Your task to perform on an android device: manage bookmarks in the chrome app Image 0: 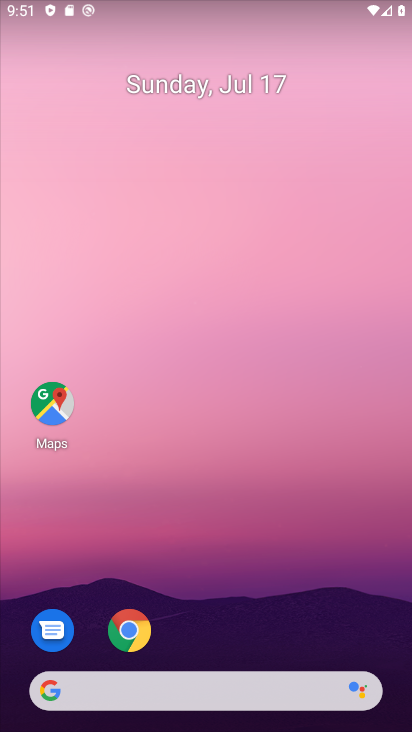
Step 0: drag from (288, 587) to (315, 56)
Your task to perform on an android device: manage bookmarks in the chrome app Image 1: 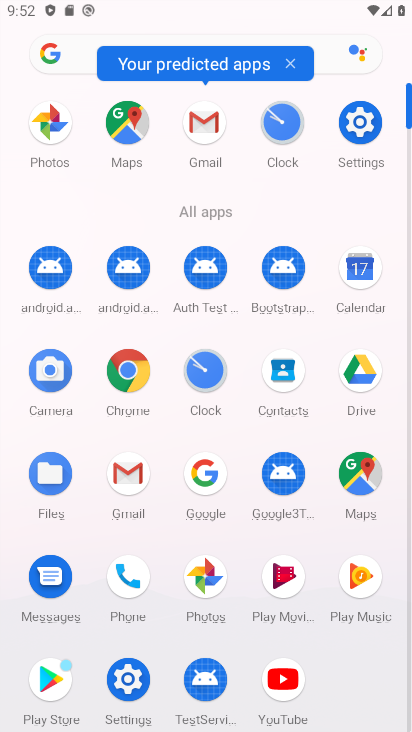
Step 1: click (135, 379)
Your task to perform on an android device: manage bookmarks in the chrome app Image 2: 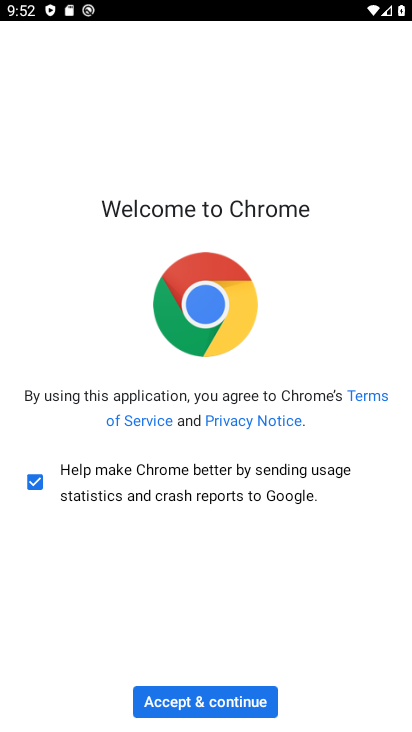
Step 2: click (189, 706)
Your task to perform on an android device: manage bookmarks in the chrome app Image 3: 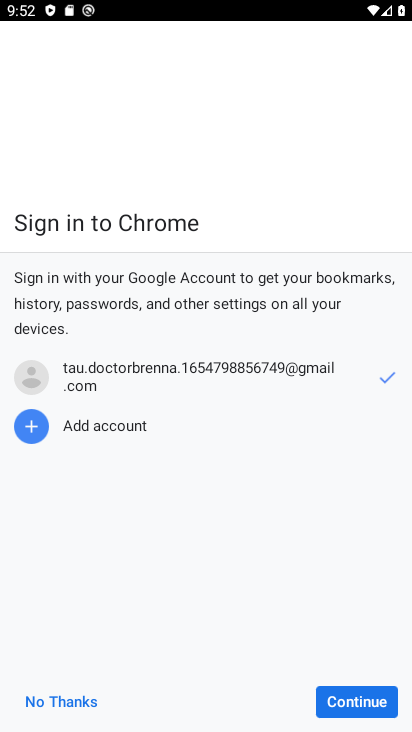
Step 3: click (356, 695)
Your task to perform on an android device: manage bookmarks in the chrome app Image 4: 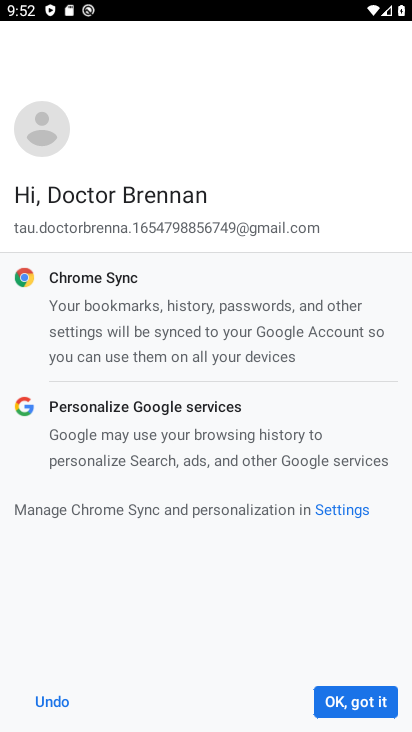
Step 4: click (368, 700)
Your task to perform on an android device: manage bookmarks in the chrome app Image 5: 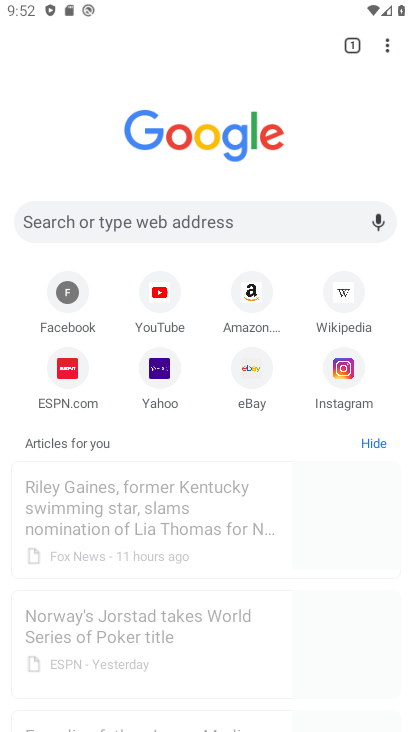
Step 5: click (389, 53)
Your task to perform on an android device: manage bookmarks in the chrome app Image 6: 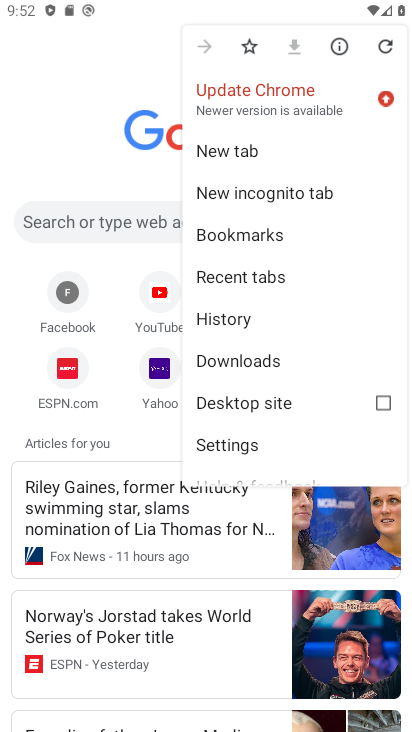
Step 6: drag from (332, 439) to (335, 328)
Your task to perform on an android device: manage bookmarks in the chrome app Image 7: 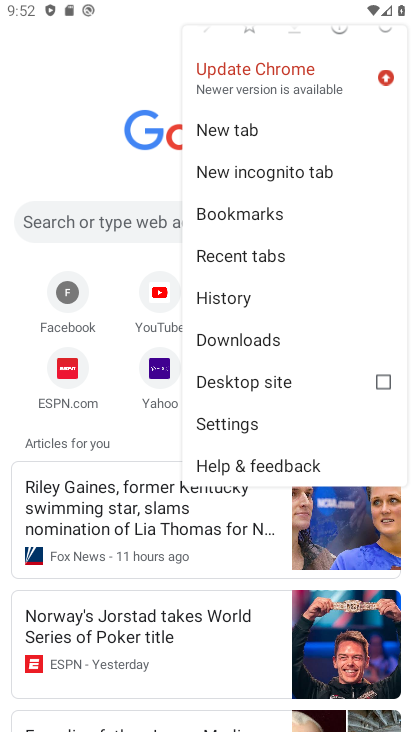
Step 7: click (280, 213)
Your task to perform on an android device: manage bookmarks in the chrome app Image 8: 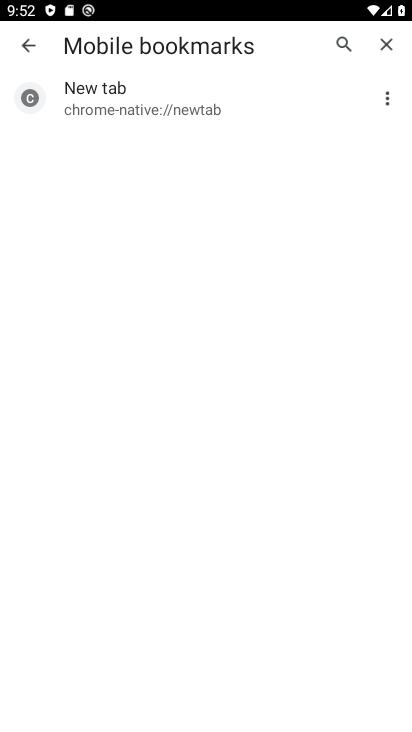
Step 8: click (172, 96)
Your task to perform on an android device: manage bookmarks in the chrome app Image 9: 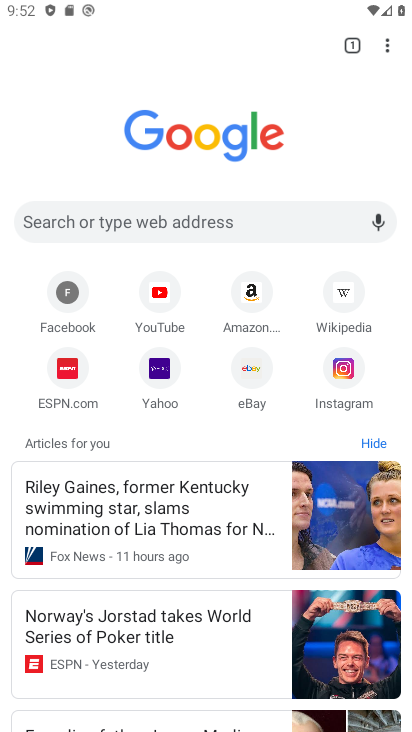
Step 9: task complete